Your task to perform on an android device: turn on translation in the chrome app Image 0: 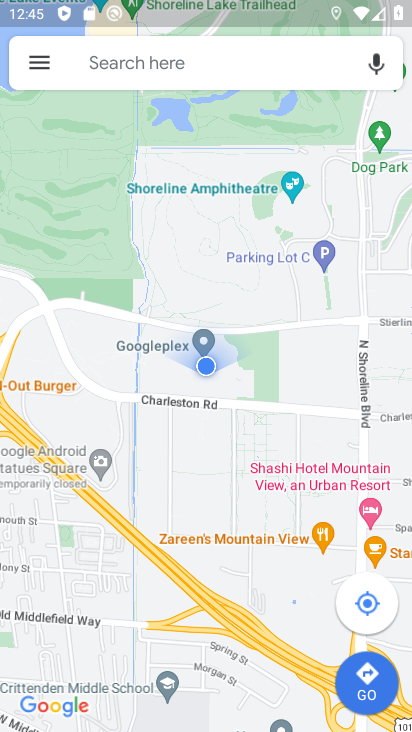
Step 0: press home button
Your task to perform on an android device: turn on translation in the chrome app Image 1: 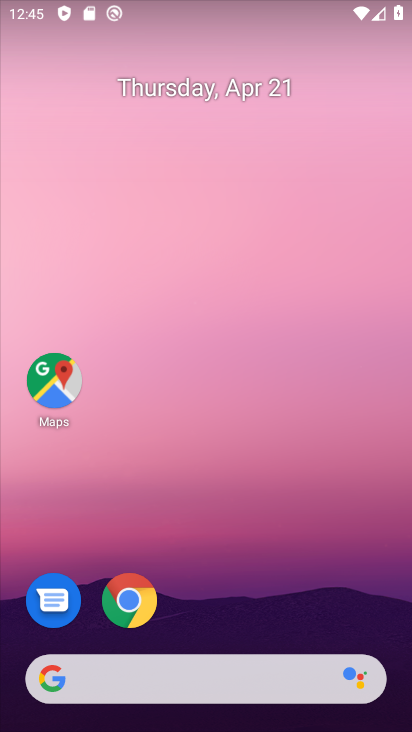
Step 1: click (132, 599)
Your task to perform on an android device: turn on translation in the chrome app Image 2: 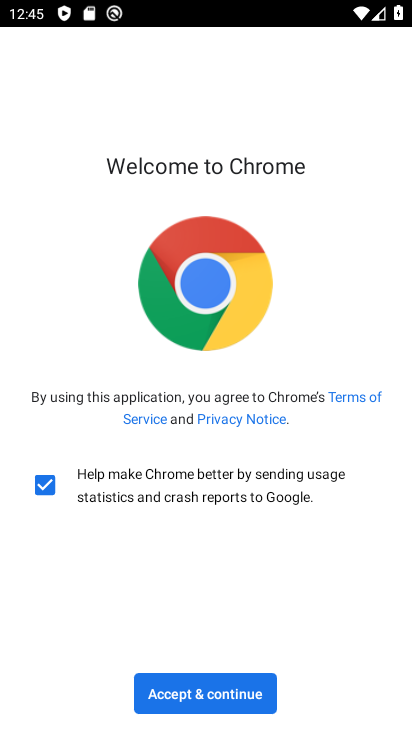
Step 2: click (195, 691)
Your task to perform on an android device: turn on translation in the chrome app Image 3: 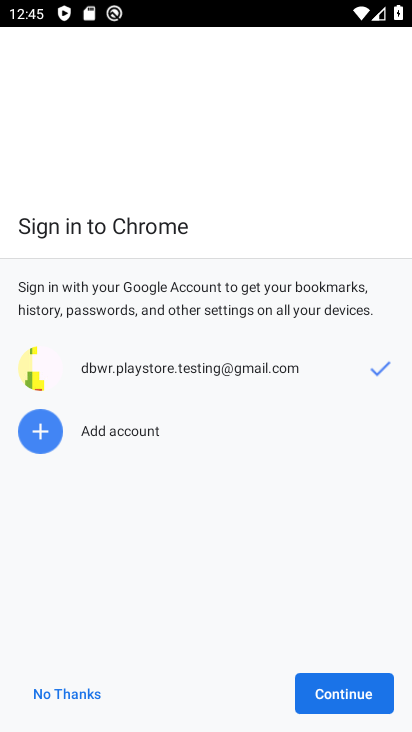
Step 3: click (339, 694)
Your task to perform on an android device: turn on translation in the chrome app Image 4: 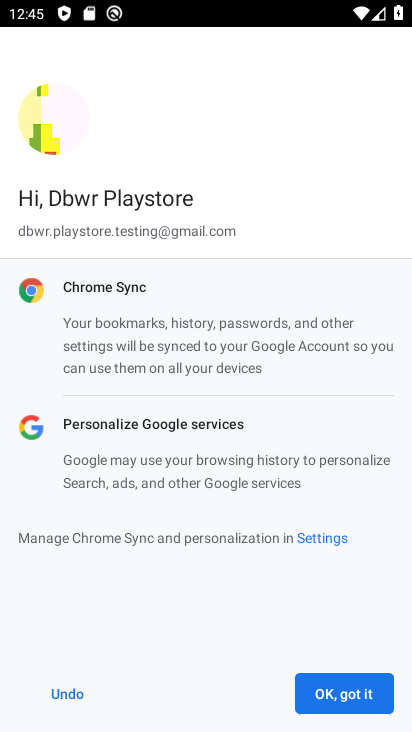
Step 4: click (349, 685)
Your task to perform on an android device: turn on translation in the chrome app Image 5: 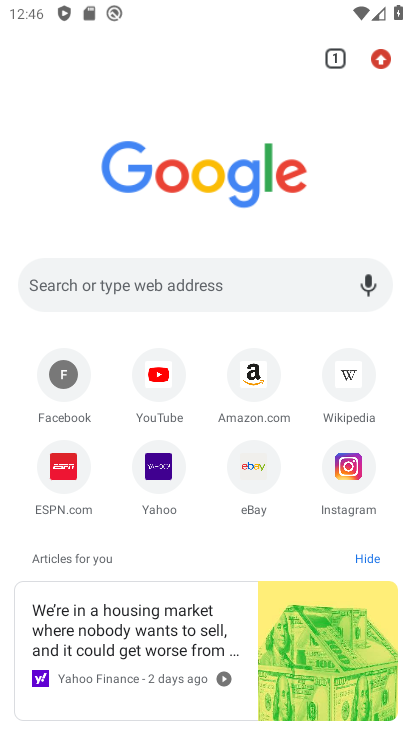
Step 5: click (376, 66)
Your task to perform on an android device: turn on translation in the chrome app Image 6: 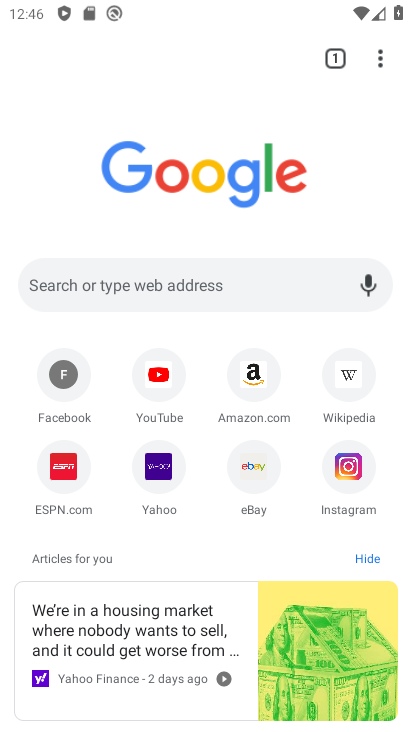
Step 6: click (380, 60)
Your task to perform on an android device: turn on translation in the chrome app Image 7: 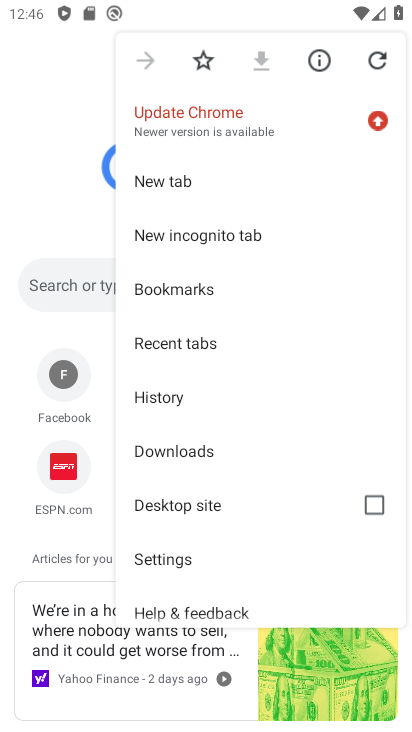
Step 7: drag from (251, 472) to (246, 361)
Your task to perform on an android device: turn on translation in the chrome app Image 8: 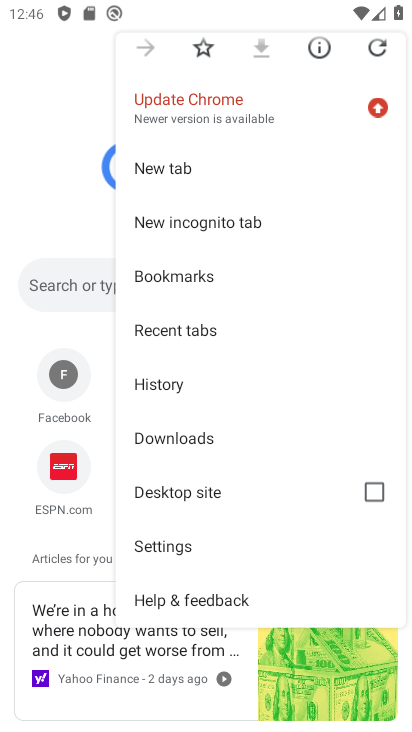
Step 8: click (158, 544)
Your task to perform on an android device: turn on translation in the chrome app Image 9: 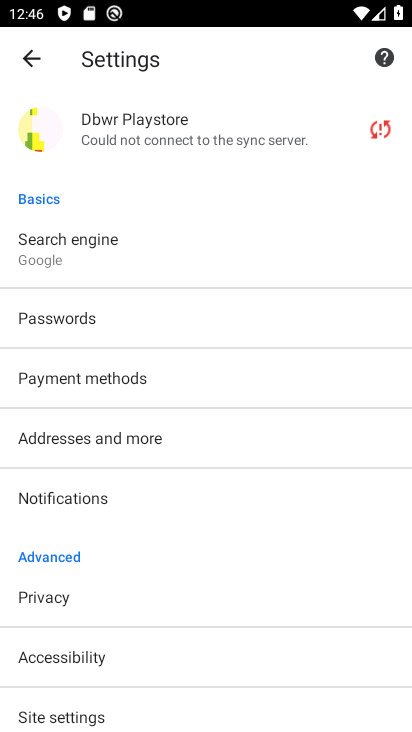
Step 9: drag from (300, 579) to (286, 421)
Your task to perform on an android device: turn on translation in the chrome app Image 10: 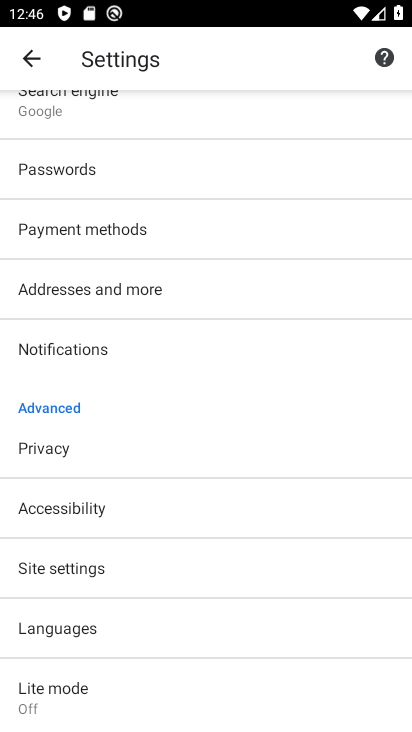
Step 10: click (60, 627)
Your task to perform on an android device: turn on translation in the chrome app Image 11: 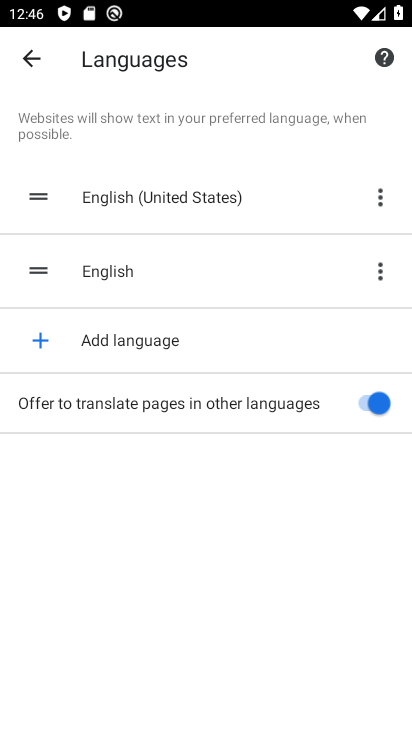
Step 11: task complete